Your task to perform on an android device: open sync settings in chrome Image 0: 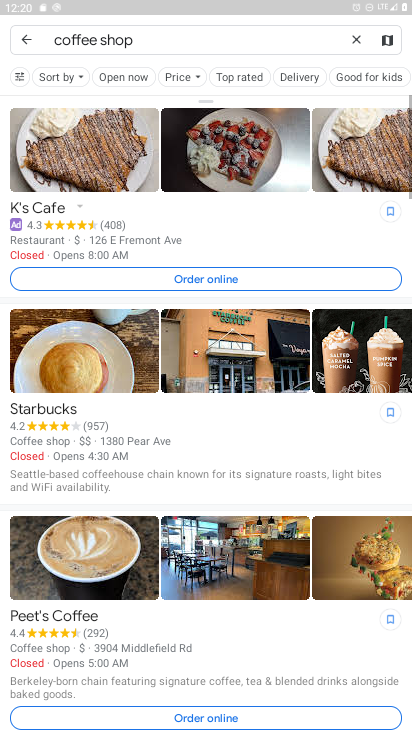
Step 0: press home button
Your task to perform on an android device: open sync settings in chrome Image 1: 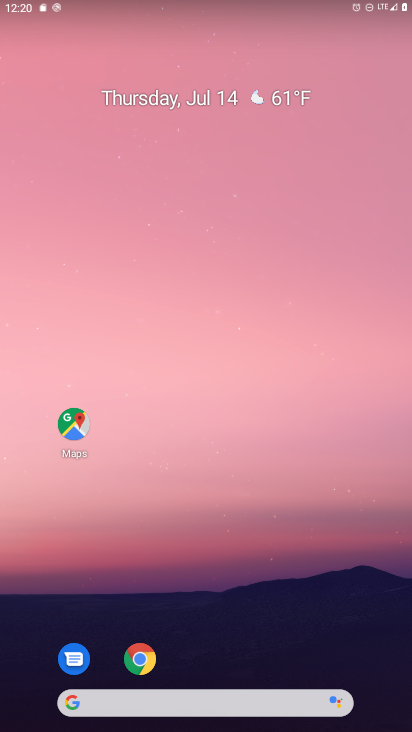
Step 1: click (139, 662)
Your task to perform on an android device: open sync settings in chrome Image 2: 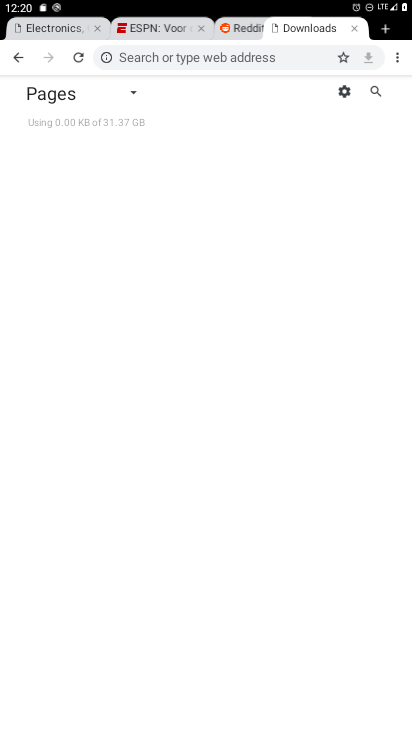
Step 2: click (397, 60)
Your task to perform on an android device: open sync settings in chrome Image 3: 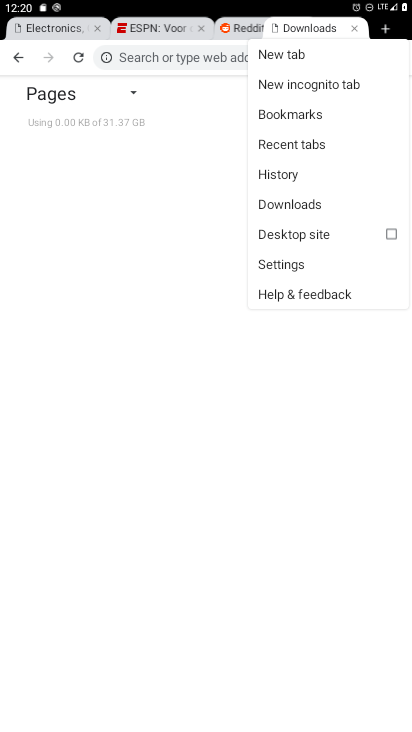
Step 3: click (285, 264)
Your task to perform on an android device: open sync settings in chrome Image 4: 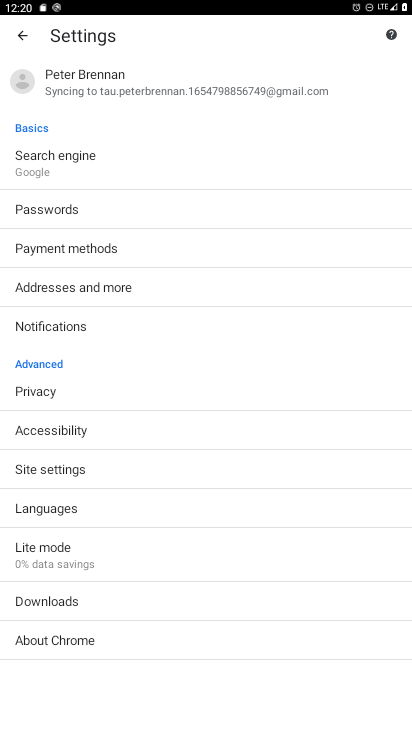
Step 4: click (82, 85)
Your task to perform on an android device: open sync settings in chrome Image 5: 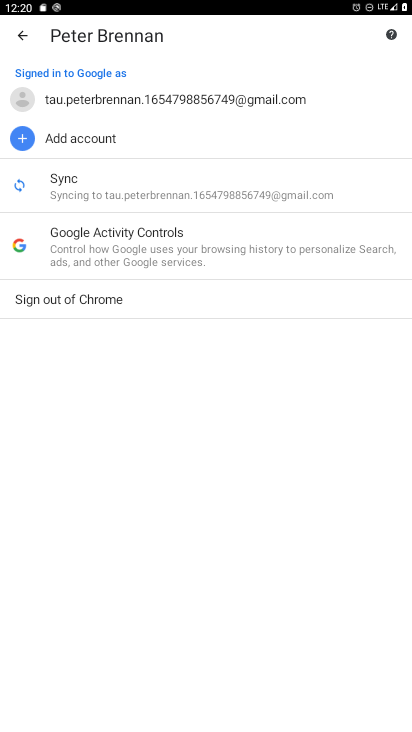
Step 5: click (66, 185)
Your task to perform on an android device: open sync settings in chrome Image 6: 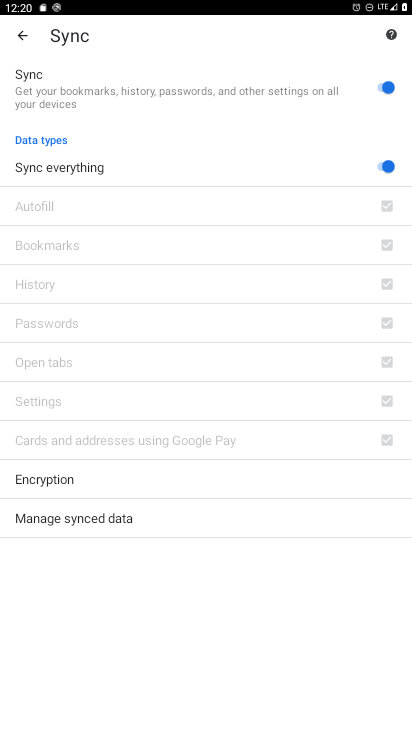
Step 6: task complete